Your task to perform on an android device: Open network settings Image 0: 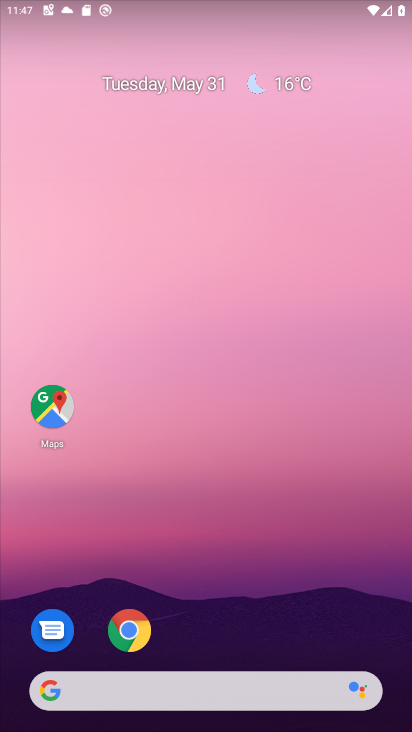
Step 0: drag from (281, 452) to (304, 132)
Your task to perform on an android device: Open network settings Image 1: 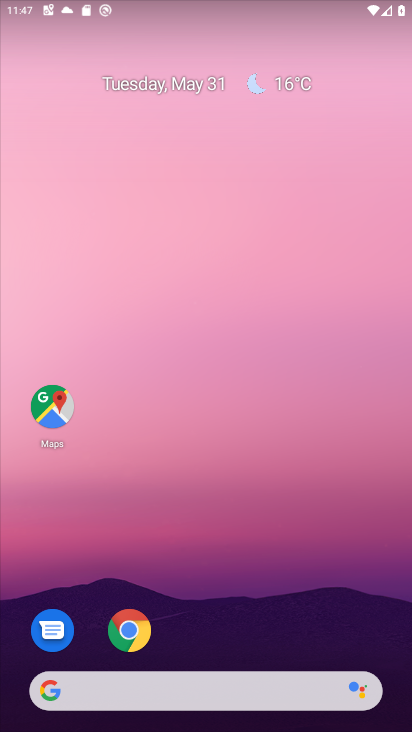
Step 1: drag from (309, 489) to (309, 102)
Your task to perform on an android device: Open network settings Image 2: 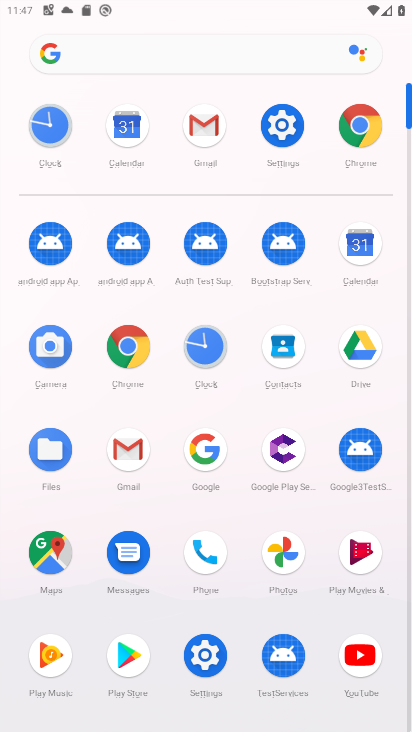
Step 2: click (283, 123)
Your task to perform on an android device: Open network settings Image 3: 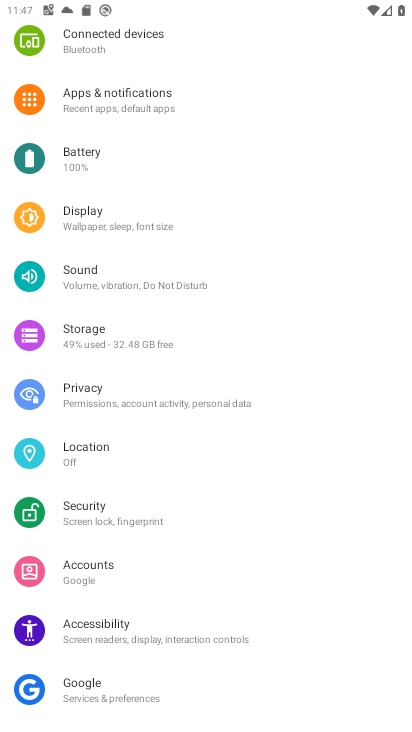
Step 3: drag from (175, 80) to (207, 609)
Your task to perform on an android device: Open network settings Image 4: 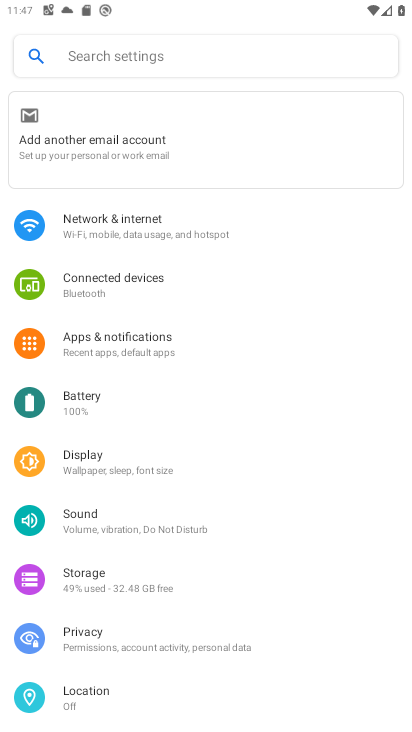
Step 4: click (174, 237)
Your task to perform on an android device: Open network settings Image 5: 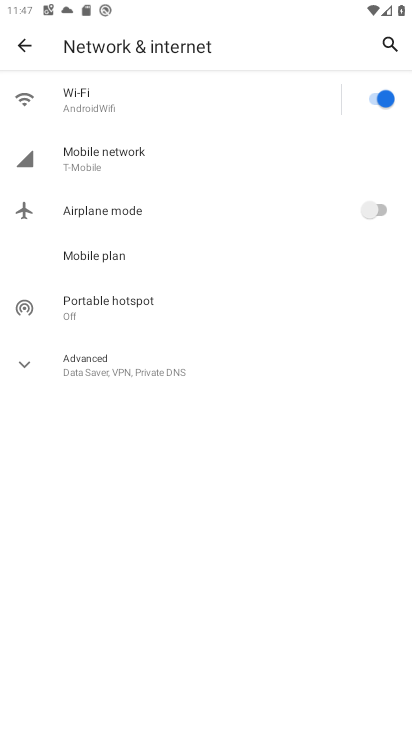
Step 5: task complete